Your task to perform on an android device: What's the weather? Image 0: 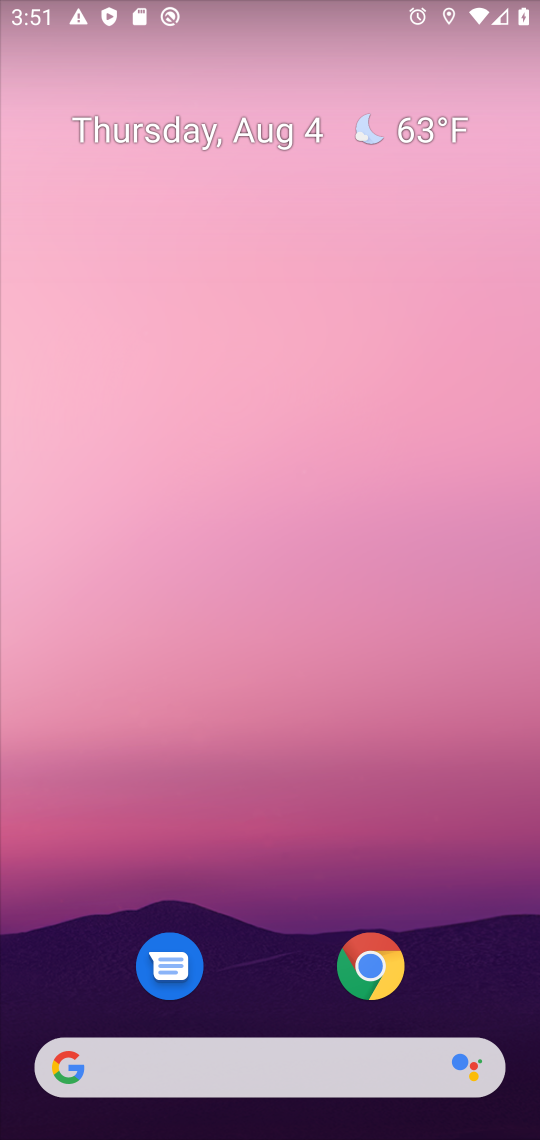
Step 0: click (61, 1068)
Your task to perform on an android device: What's the weather? Image 1: 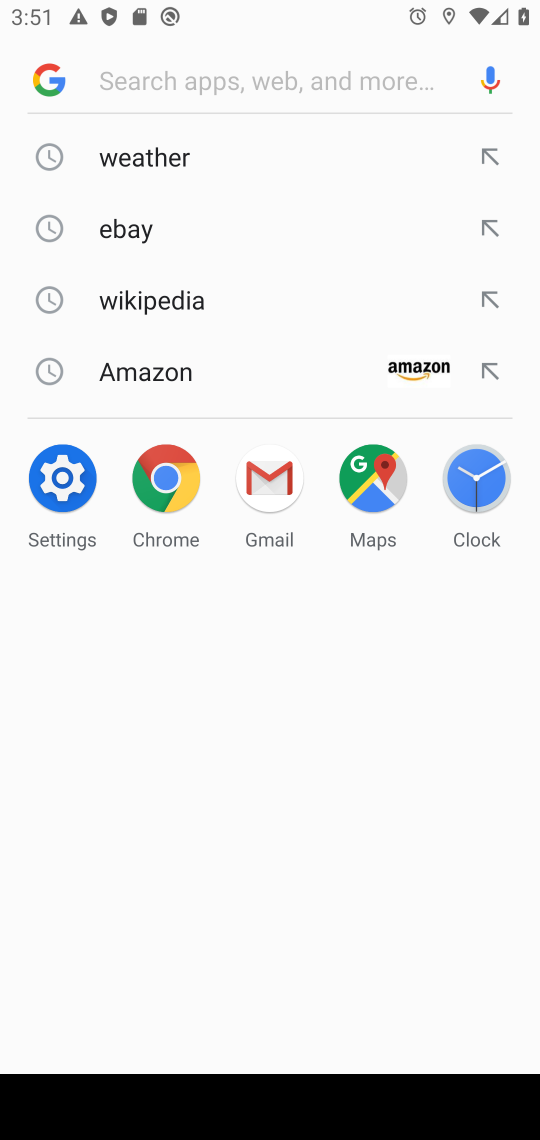
Step 1: click (148, 165)
Your task to perform on an android device: What's the weather? Image 2: 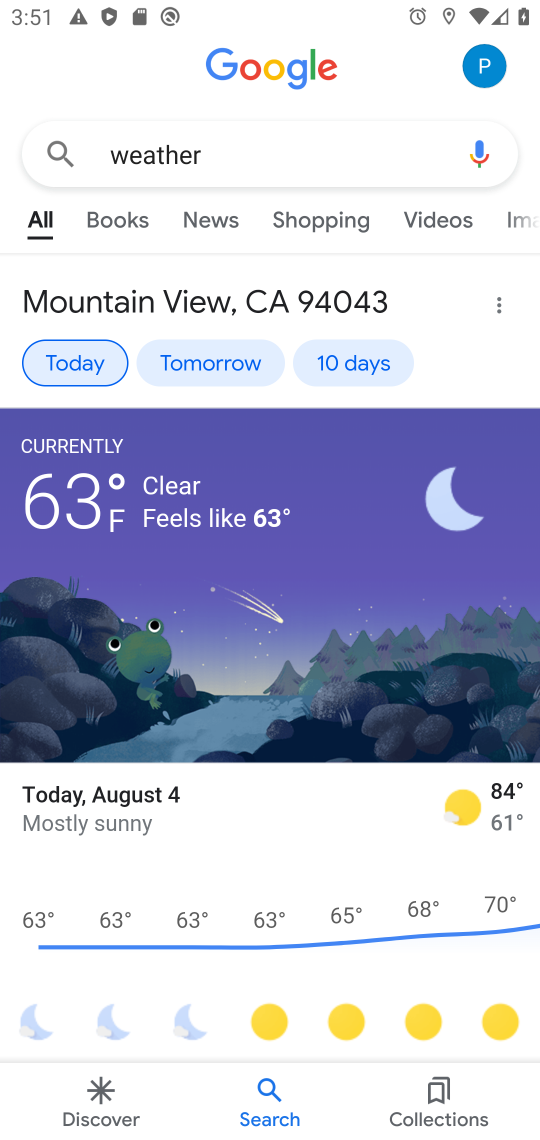
Step 2: task complete